Your task to perform on an android device: turn on improve location accuracy Image 0: 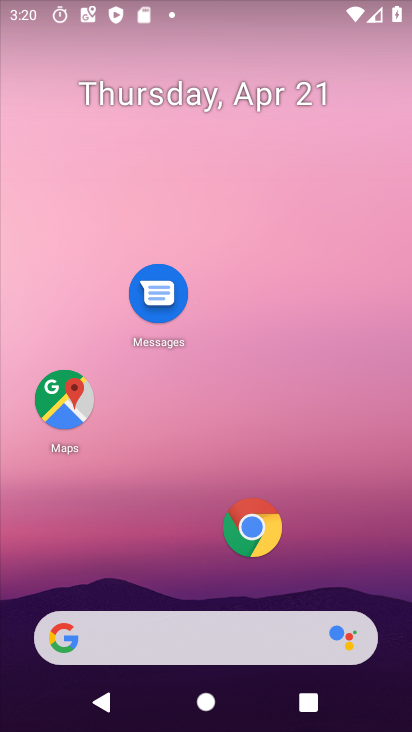
Step 0: drag from (248, 617) to (347, 233)
Your task to perform on an android device: turn on improve location accuracy Image 1: 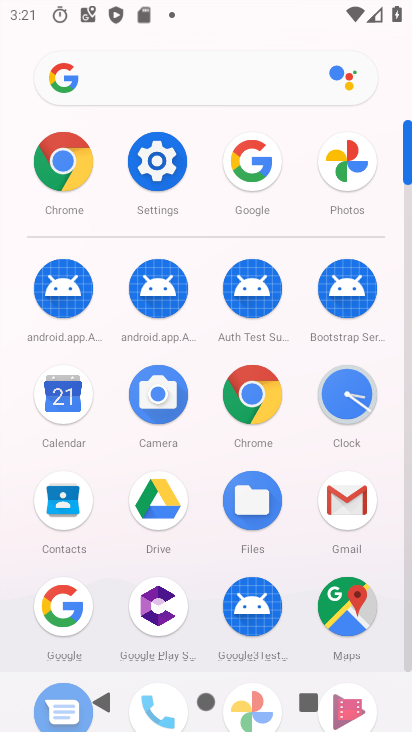
Step 1: click (155, 152)
Your task to perform on an android device: turn on improve location accuracy Image 2: 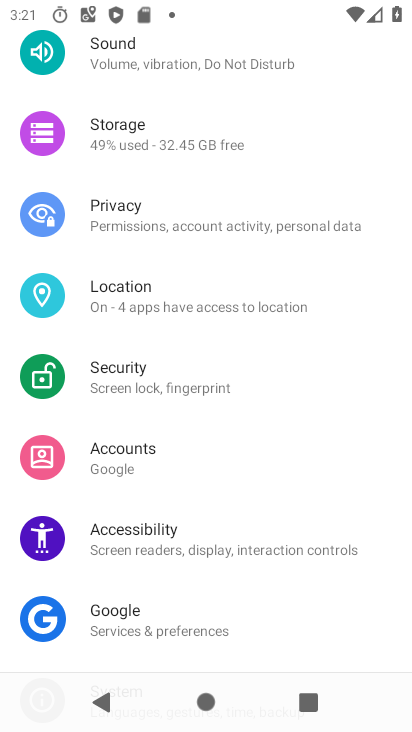
Step 2: click (137, 300)
Your task to perform on an android device: turn on improve location accuracy Image 3: 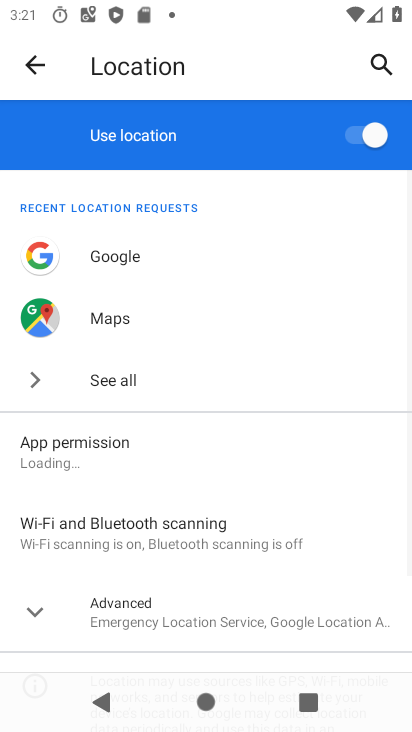
Step 3: click (176, 629)
Your task to perform on an android device: turn on improve location accuracy Image 4: 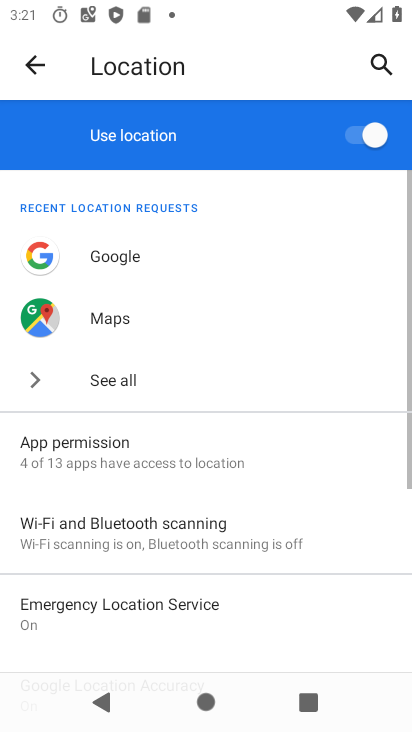
Step 4: drag from (181, 639) to (258, 353)
Your task to perform on an android device: turn on improve location accuracy Image 5: 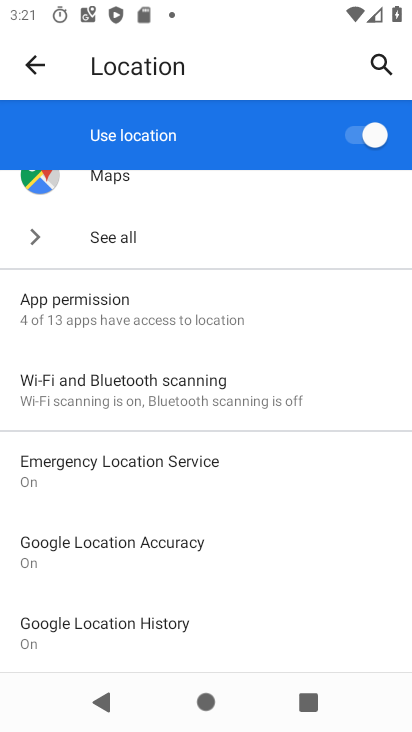
Step 5: click (150, 552)
Your task to perform on an android device: turn on improve location accuracy Image 6: 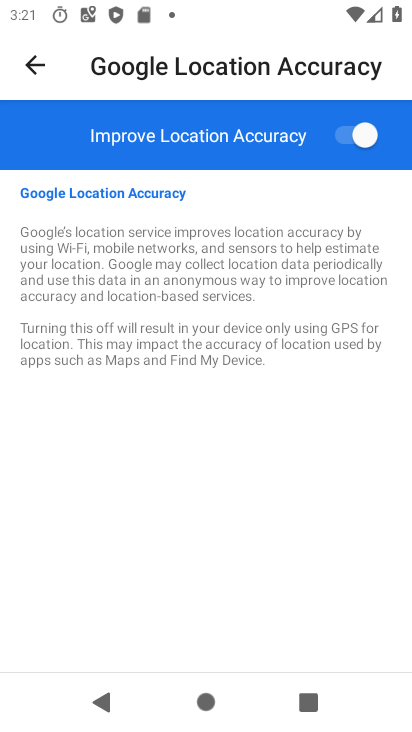
Step 6: task complete